Your task to perform on an android device: turn off data saver in the chrome app Image 0: 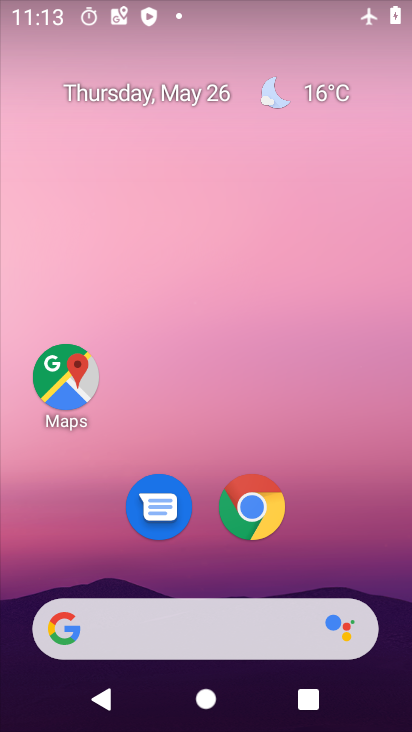
Step 0: drag from (207, 555) to (250, 270)
Your task to perform on an android device: turn off data saver in the chrome app Image 1: 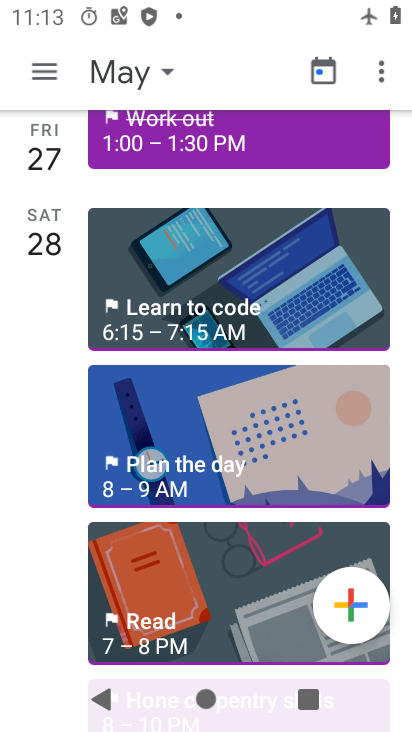
Step 1: press home button
Your task to perform on an android device: turn off data saver in the chrome app Image 2: 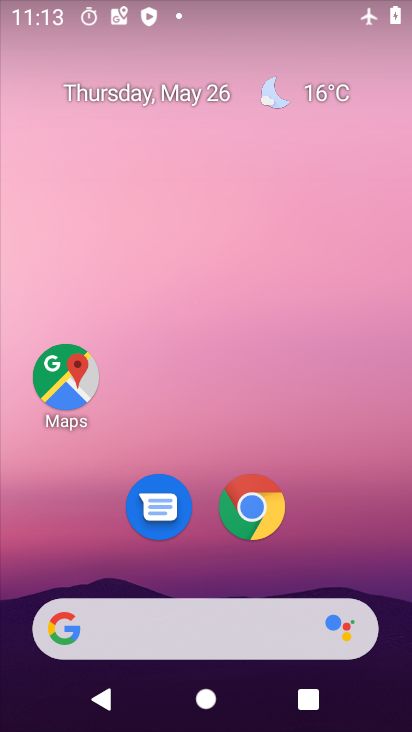
Step 2: drag from (160, 608) to (199, 270)
Your task to perform on an android device: turn off data saver in the chrome app Image 3: 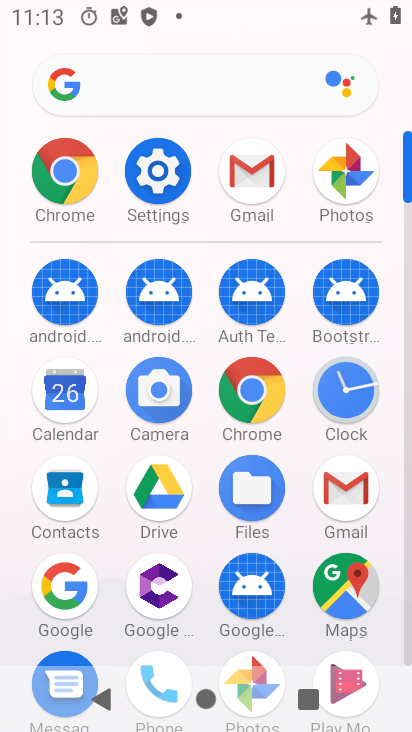
Step 3: click (248, 377)
Your task to perform on an android device: turn off data saver in the chrome app Image 4: 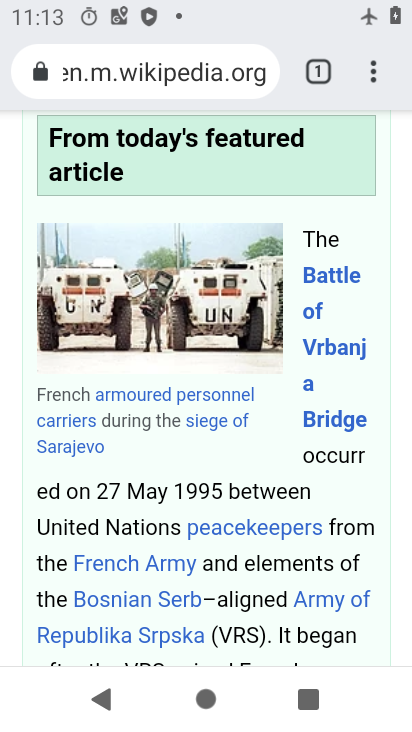
Step 4: click (371, 71)
Your task to perform on an android device: turn off data saver in the chrome app Image 5: 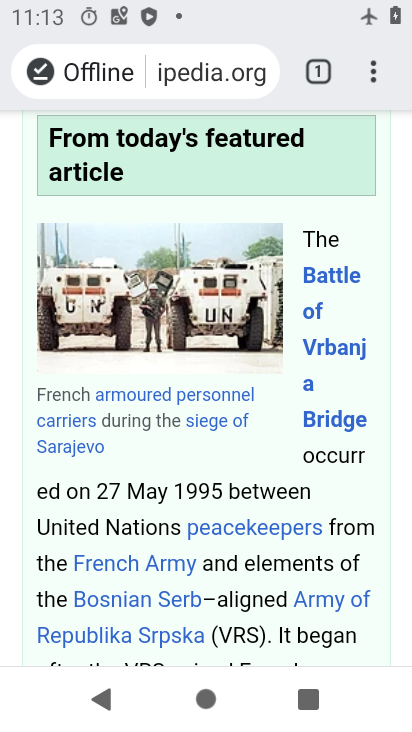
Step 5: click (368, 67)
Your task to perform on an android device: turn off data saver in the chrome app Image 6: 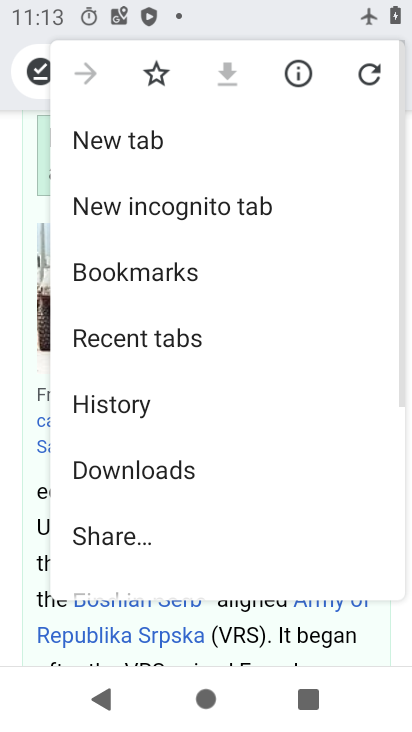
Step 6: drag from (181, 537) to (206, 164)
Your task to perform on an android device: turn off data saver in the chrome app Image 7: 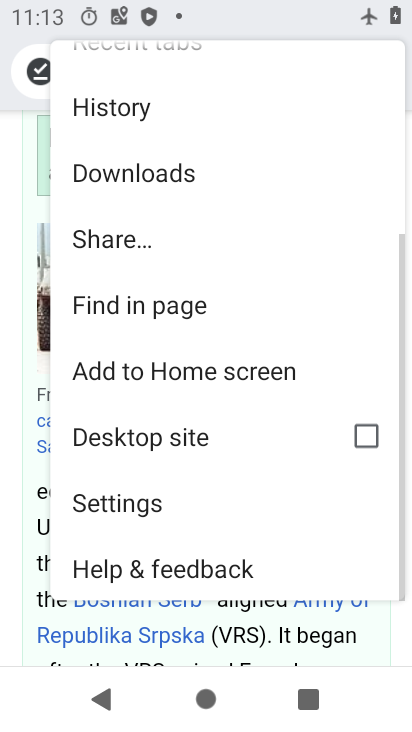
Step 7: click (138, 496)
Your task to perform on an android device: turn off data saver in the chrome app Image 8: 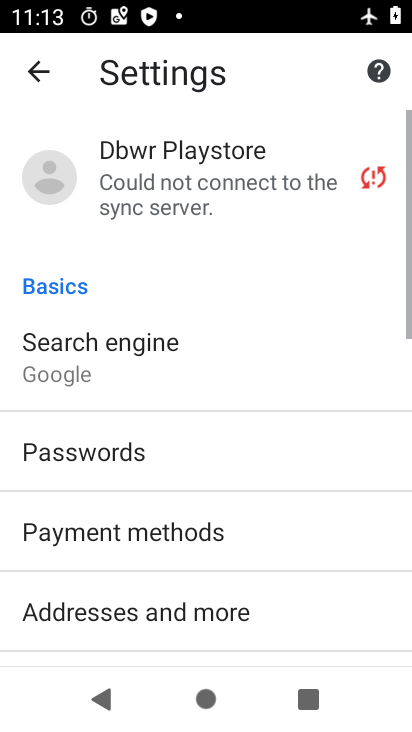
Step 8: drag from (101, 621) to (134, 180)
Your task to perform on an android device: turn off data saver in the chrome app Image 9: 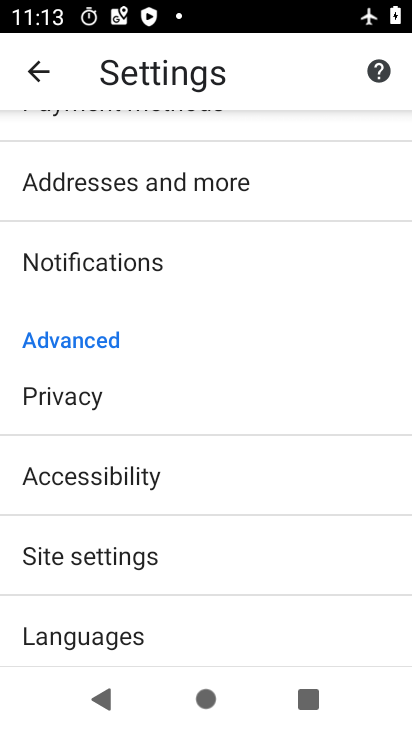
Step 9: click (103, 558)
Your task to perform on an android device: turn off data saver in the chrome app Image 10: 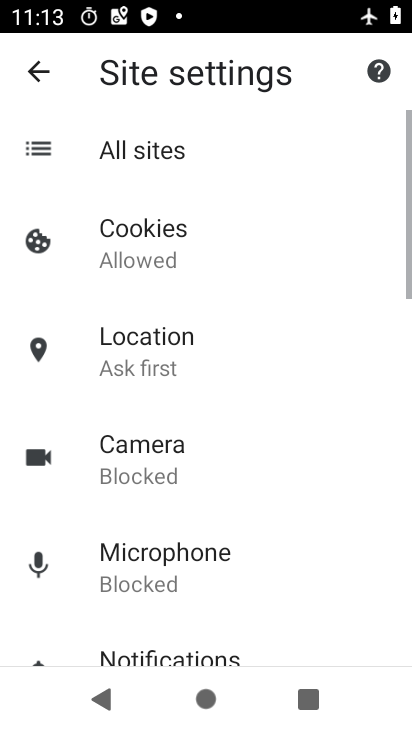
Step 10: drag from (188, 600) to (188, 238)
Your task to perform on an android device: turn off data saver in the chrome app Image 11: 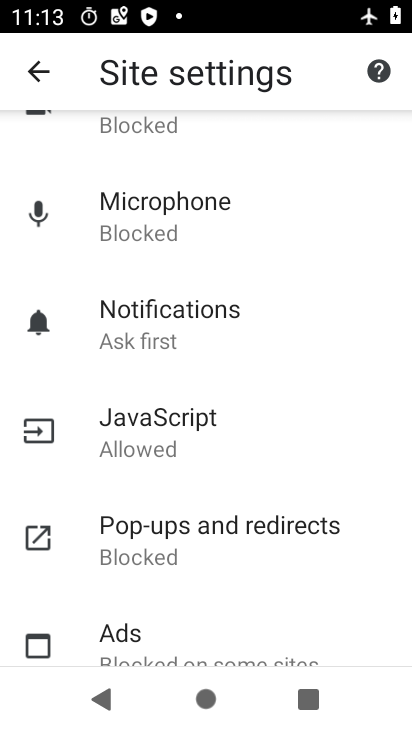
Step 11: click (44, 76)
Your task to perform on an android device: turn off data saver in the chrome app Image 12: 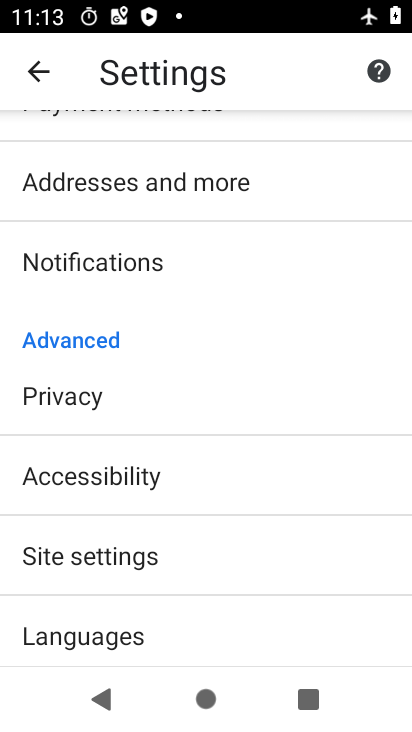
Step 12: drag from (103, 654) to (131, 342)
Your task to perform on an android device: turn off data saver in the chrome app Image 13: 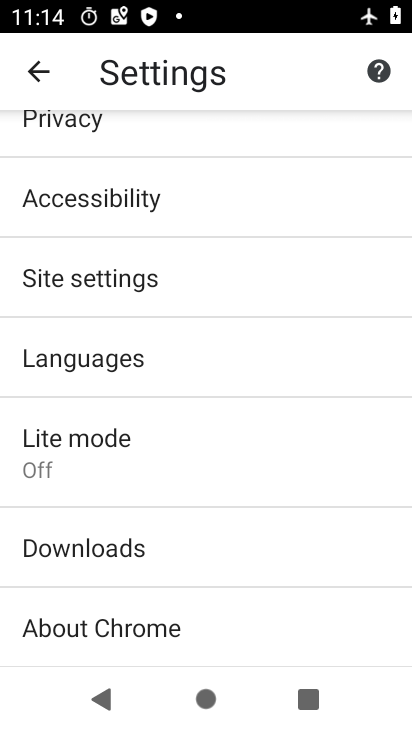
Step 13: click (79, 437)
Your task to perform on an android device: turn off data saver in the chrome app Image 14: 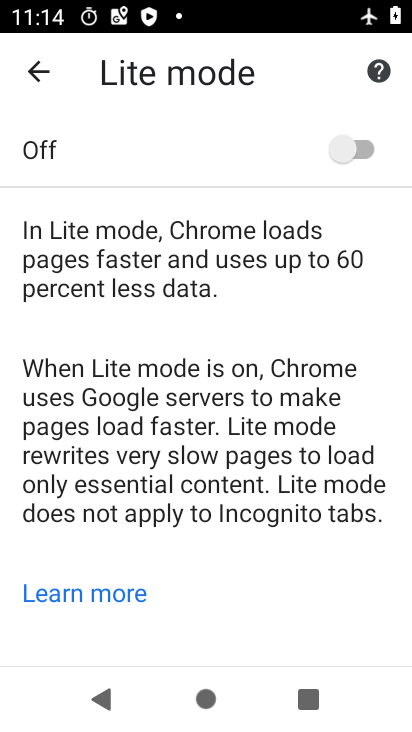
Step 14: task complete